Your task to perform on an android device: Open calendar and show me the second week of next month Image 0: 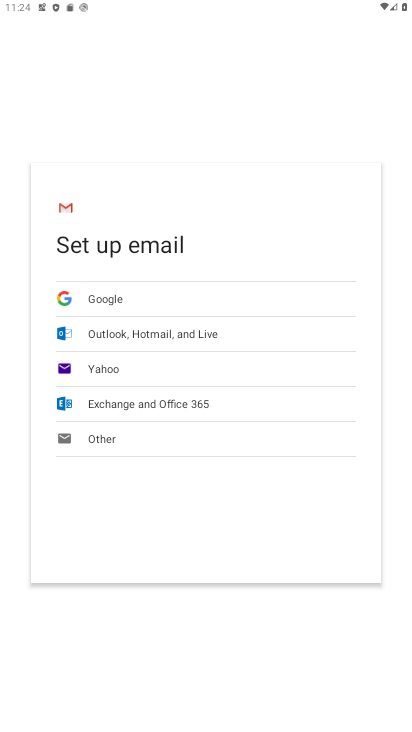
Step 0: press home button
Your task to perform on an android device: Open calendar and show me the second week of next month Image 1: 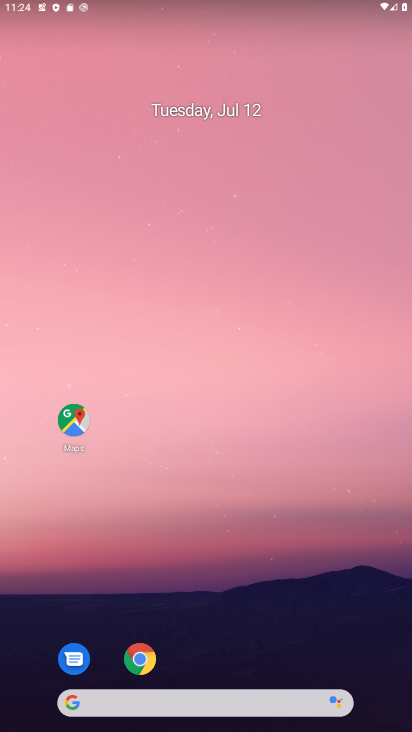
Step 1: drag from (254, 714) to (313, 2)
Your task to perform on an android device: Open calendar and show me the second week of next month Image 2: 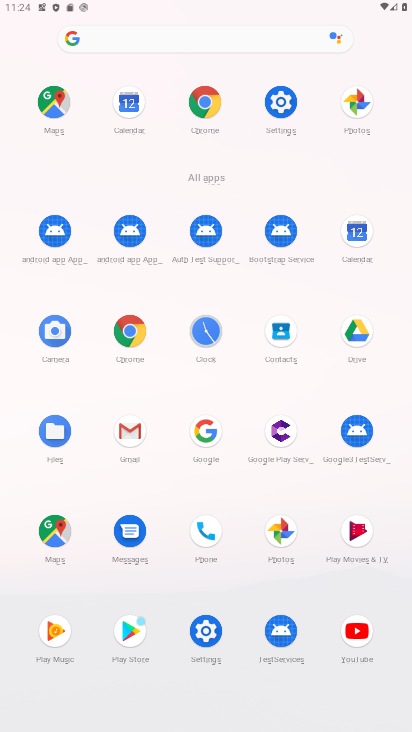
Step 2: click (359, 244)
Your task to perform on an android device: Open calendar and show me the second week of next month Image 3: 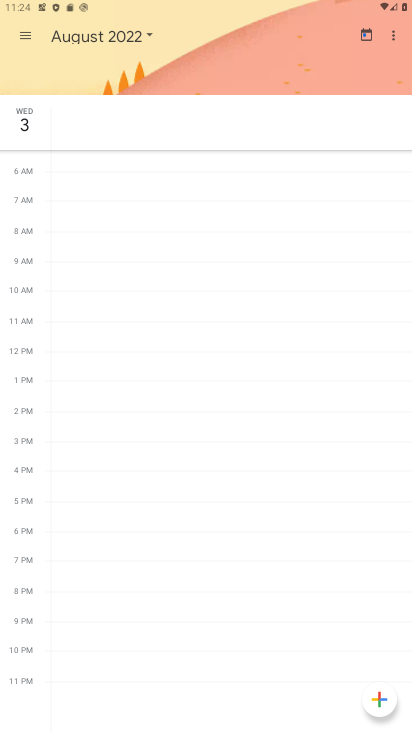
Step 3: click (146, 33)
Your task to perform on an android device: Open calendar and show me the second week of next month Image 4: 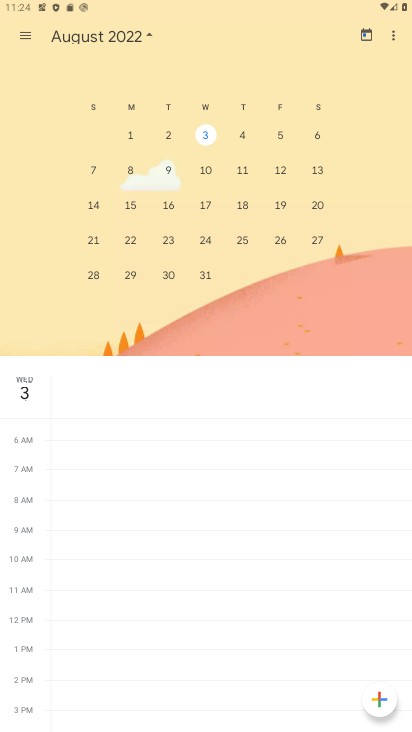
Step 4: click (214, 166)
Your task to perform on an android device: Open calendar and show me the second week of next month Image 5: 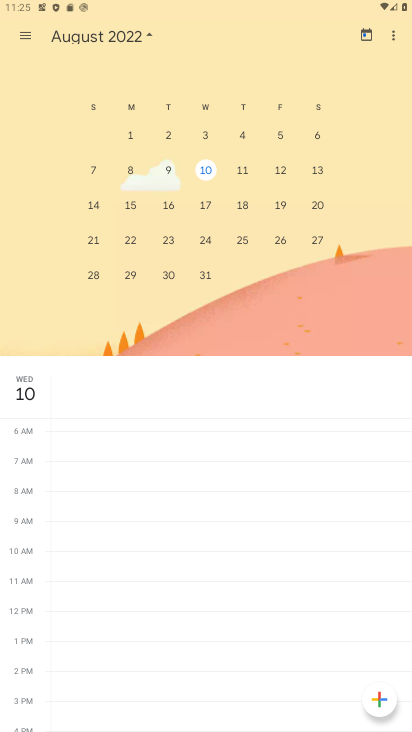
Step 5: click (32, 34)
Your task to perform on an android device: Open calendar and show me the second week of next month Image 6: 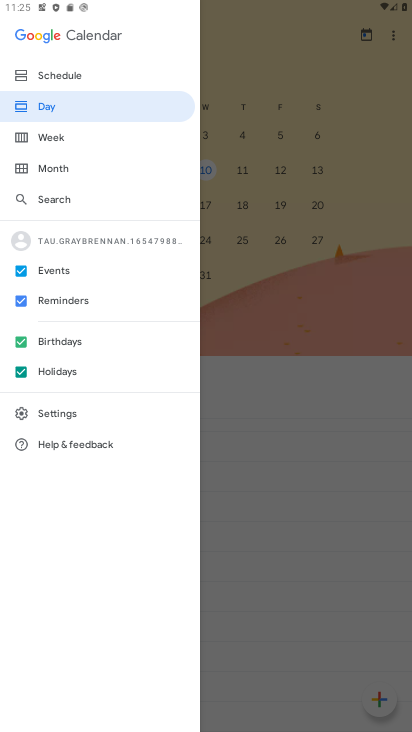
Step 6: click (62, 131)
Your task to perform on an android device: Open calendar and show me the second week of next month Image 7: 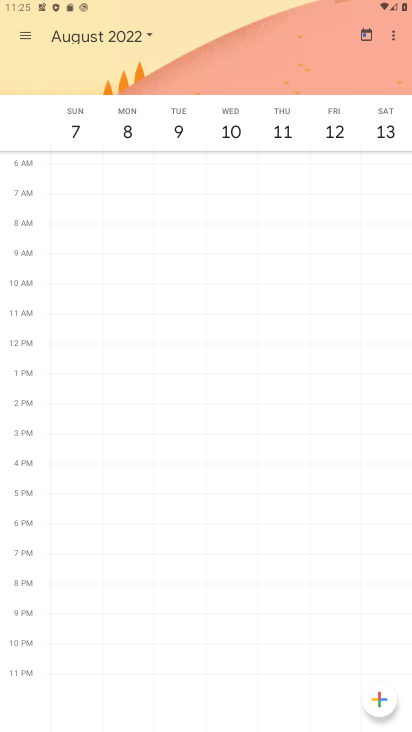
Step 7: task complete